Your task to perform on an android device: turn smart compose on in the gmail app Image 0: 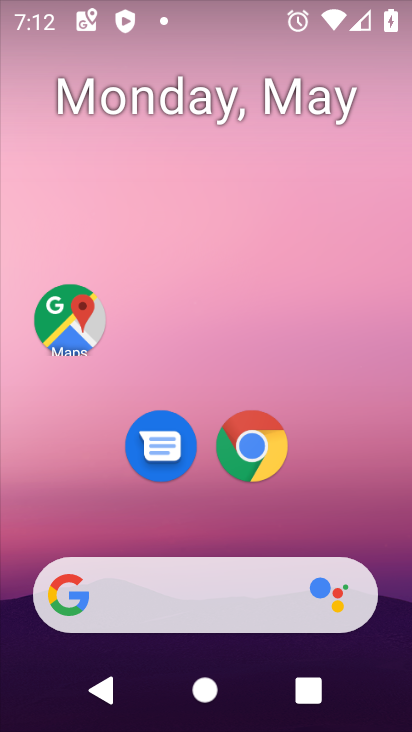
Step 0: drag from (321, 490) to (146, 10)
Your task to perform on an android device: turn smart compose on in the gmail app Image 1: 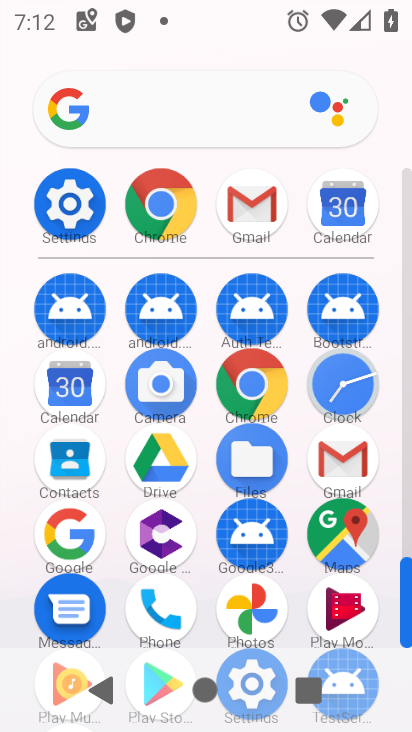
Step 1: click (260, 212)
Your task to perform on an android device: turn smart compose on in the gmail app Image 2: 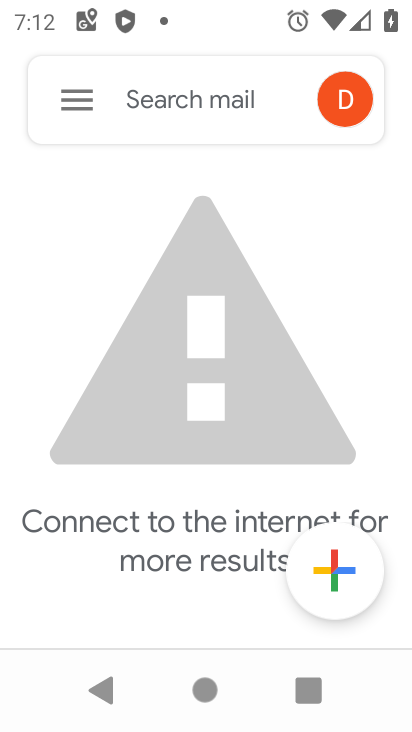
Step 2: click (81, 98)
Your task to perform on an android device: turn smart compose on in the gmail app Image 3: 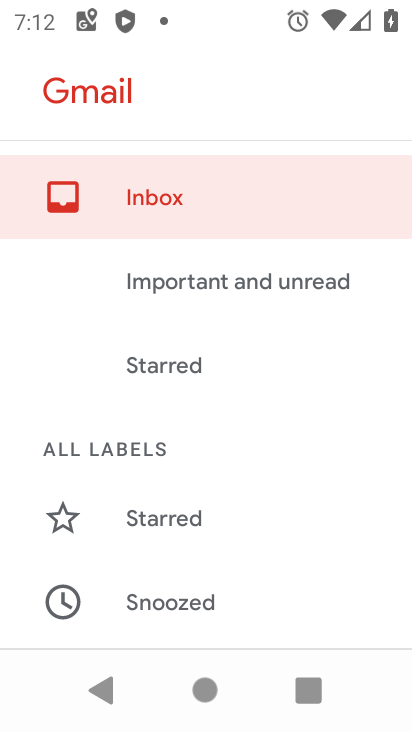
Step 3: drag from (209, 490) to (151, 137)
Your task to perform on an android device: turn smart compose on in the gmail app Image 4: 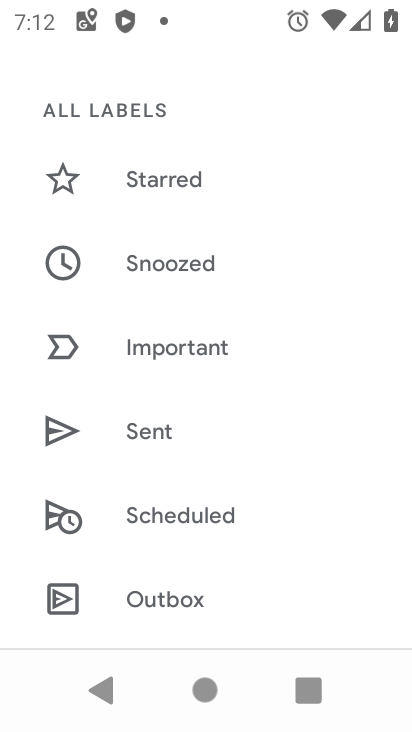
Step 4: drag from (250, 551) to (317, 168)
Your task to perform on an android device: turn smart compose on in the gmail app Image 5: 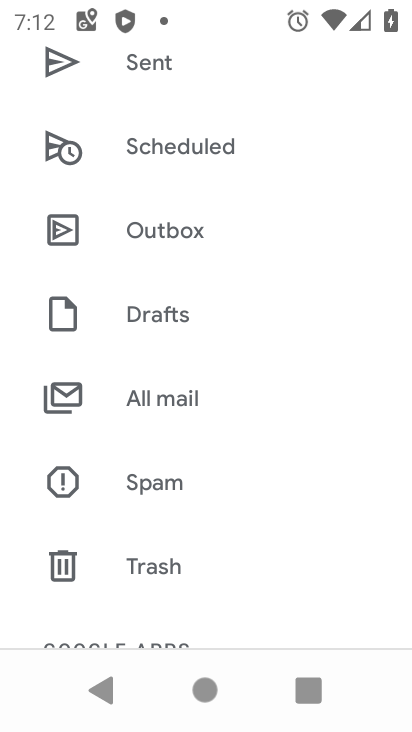
Step 5: drag from (299, 528) to (263, 37)
Your task to perform on an android device: turn smart compose on in the gmail app Image 6: 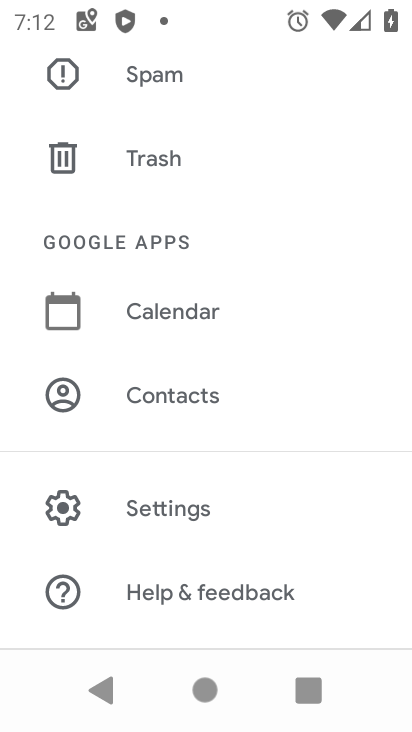
Step 6: click (180, 512)
Your task to perform on an android device: turn smart compose on in the gmail app Image 7: 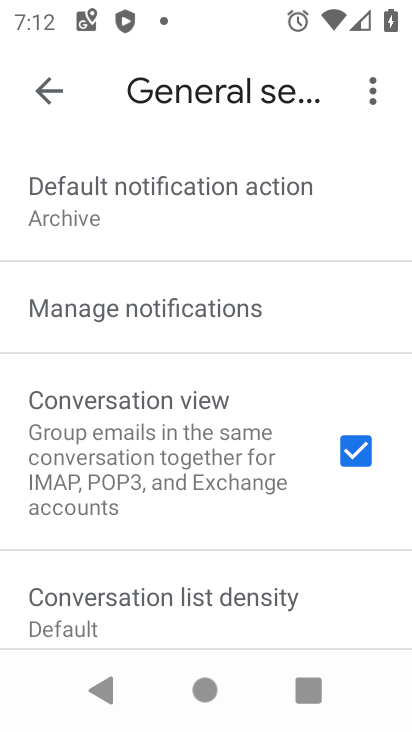
Step 7: click (48, 87)
Your task to perform on an android device: turn smart compose on in the gmail app Image 8: 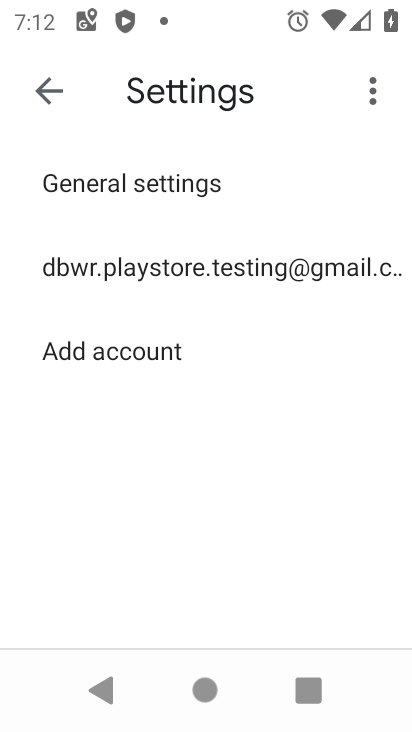
Step 8: click (170, 289)
Your task to perform on an android device: turn smart compose on in the gmail app Image 9: 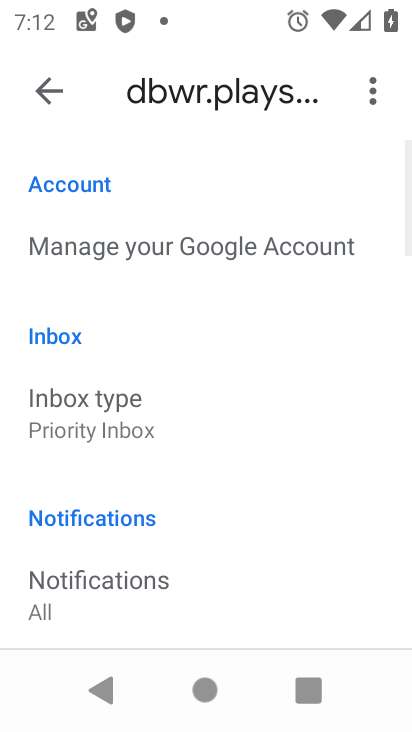
Step 9: task complete